Your task to perform on an android device: toggle show notifications on the lock screen Image 0: 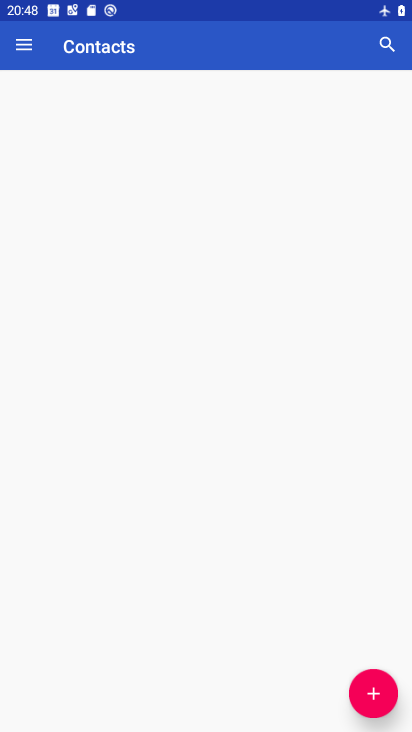
Step 0: click (136, 637)
Your task to perform on an android device: toggle show notifications on the lock screen Image 1: 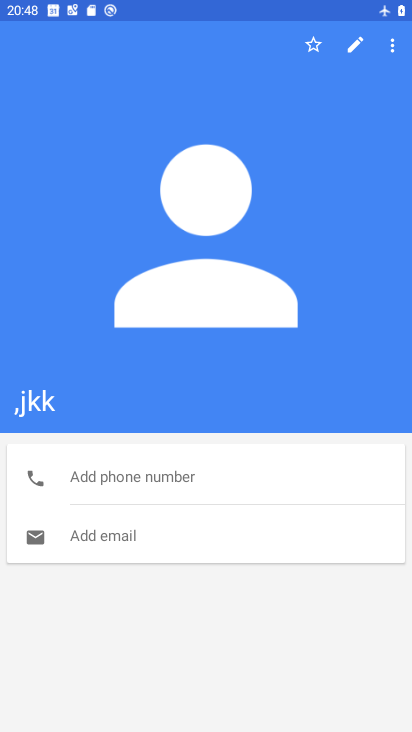
Step 1: press home button
Your task to perform on an android device: toggle show notifications on the lock screen Image 2: 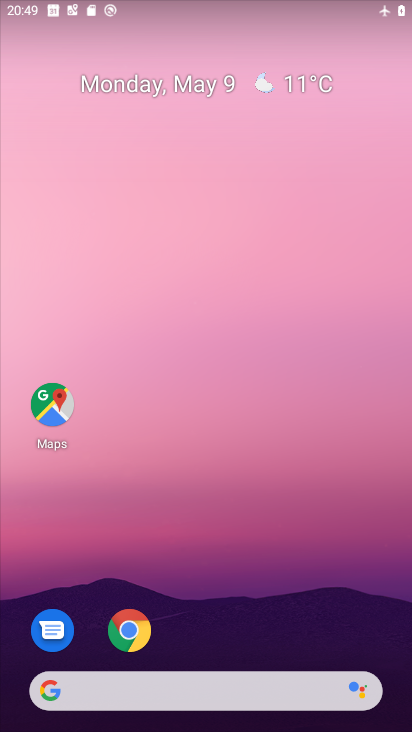
Step 2: drag from (203, 635) to (293, 103)
Your task to perform on an android device: toggle show notifications on the lock screen Image 3: 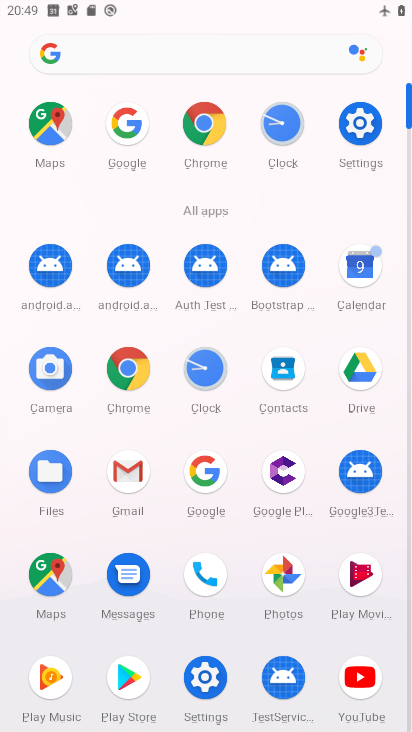
Step 3: click (362, 120)
Your task to perform on an android device: toggle show notifications on the lock screen Image 4: 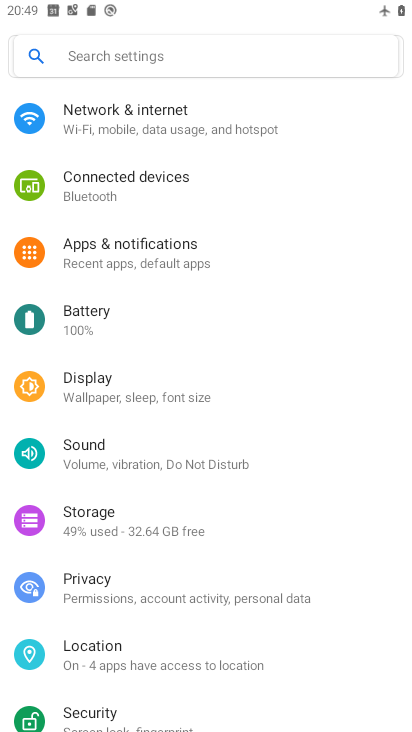
Step 4: click (142, 246)
Your task to perform on an android device: toggle show notifications on the lock screen Image 5: 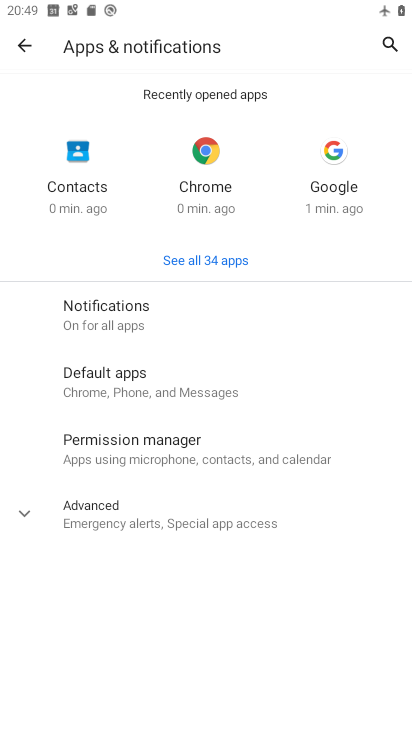
Step 5: click (142, 334)
Your task to perform on an android device: toggle show notifications on the lock screen Image 6: 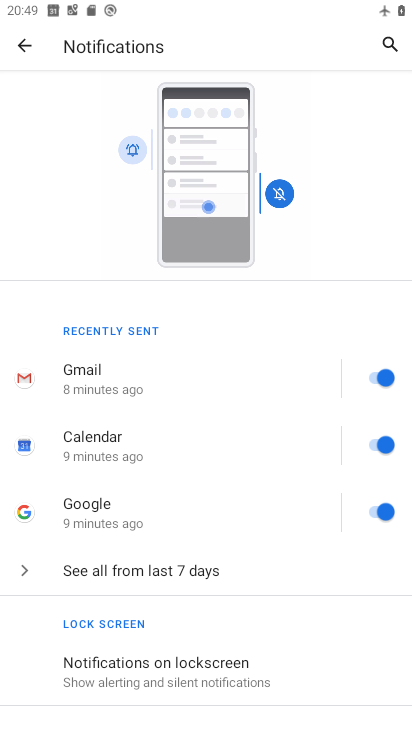
Step 6: click (183, 676)
Your task to perform on an android device: toggle show notifications on the lock screen Image 7: 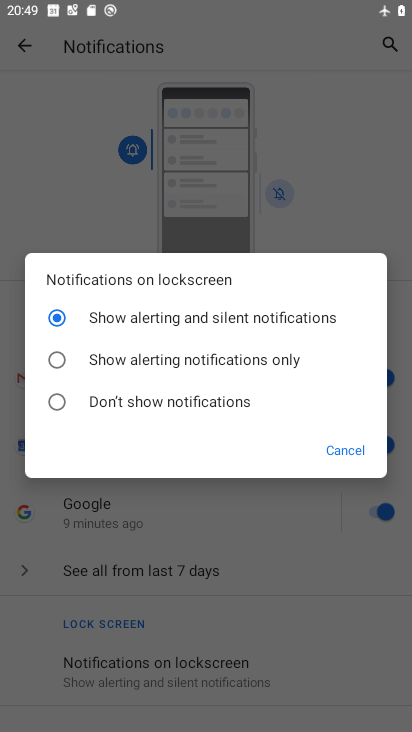
Step 7: click (160, 352)
Your task to perform on an android device: toggle show notifications on the lock screen Image 8: 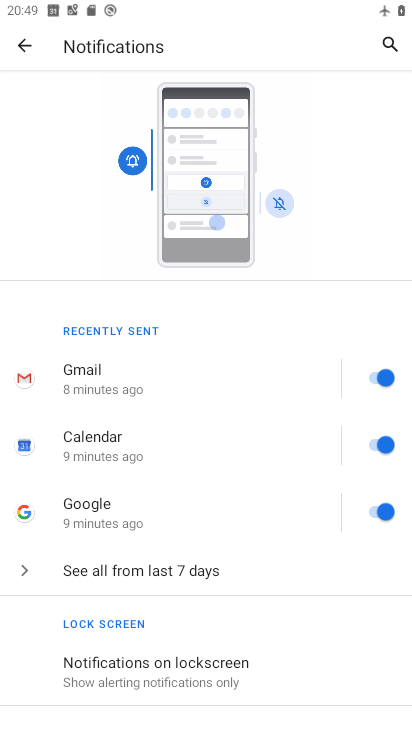
Step 8: task complete